Your task to perform on an android device: manage bookmarks in the chrome app Image 0: 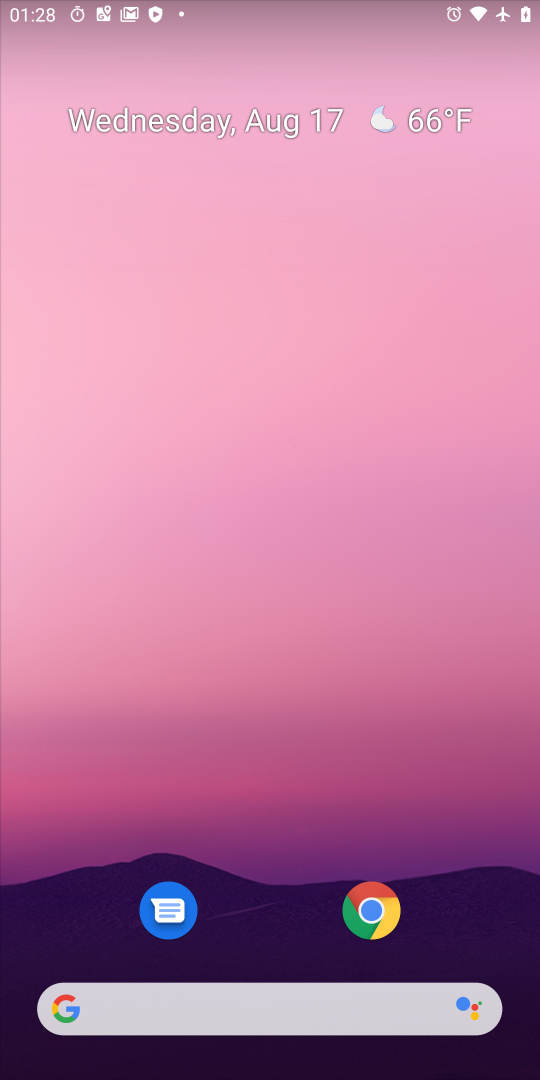
Step 0: drag from (243, 936) to (353, 185)
Your task to perform on an android device: manage bookmarks in the chrome app Image 1: 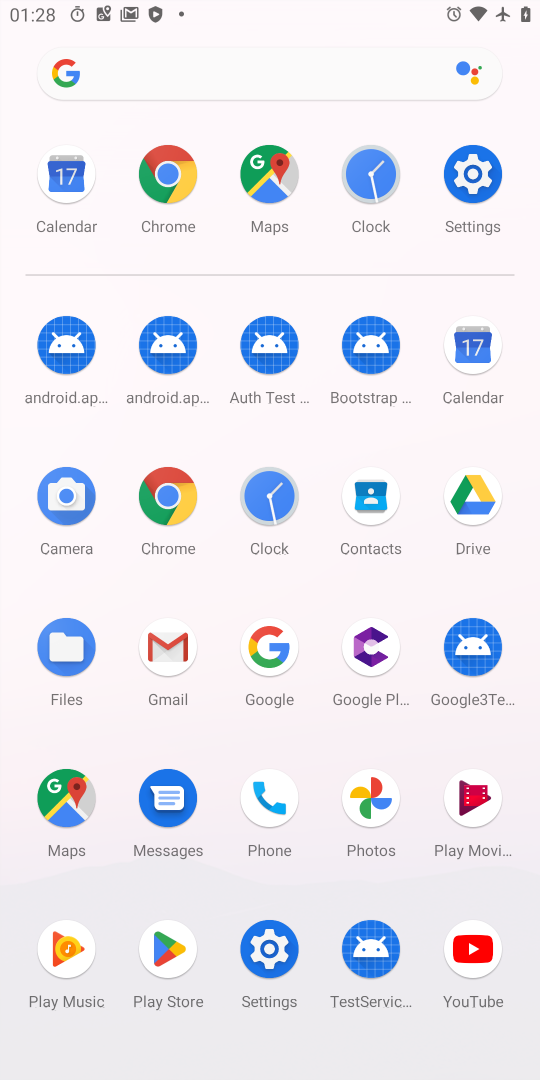
Step 1: click (171, 497)
Your task to perform on an android device: manage bookmarks in the chrome app Image 2: 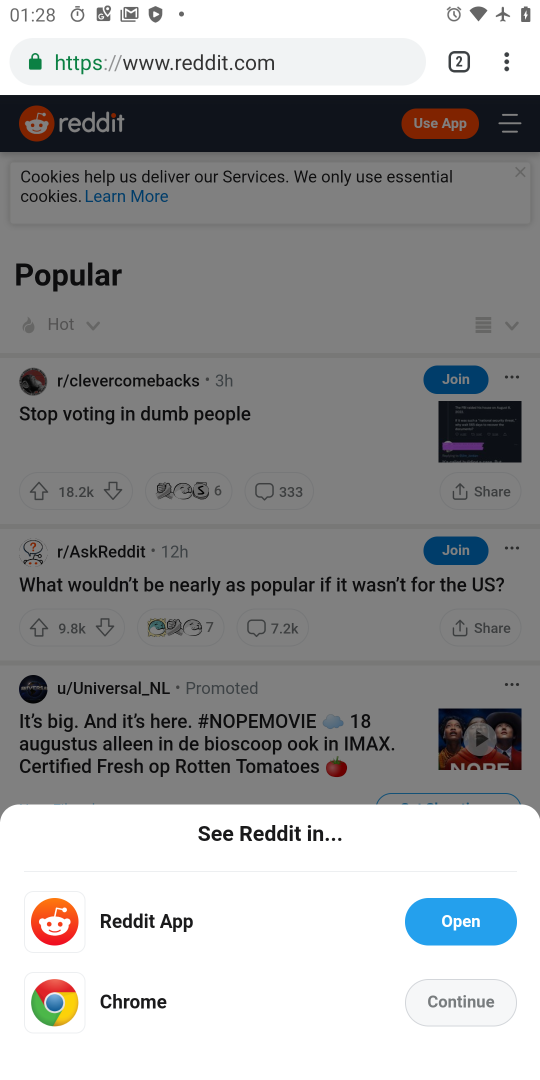
Step 2: drag from (498, 61) to (274, 314)
Your task to perform on an android device: manage bookmarks in the chrome app Image 3: 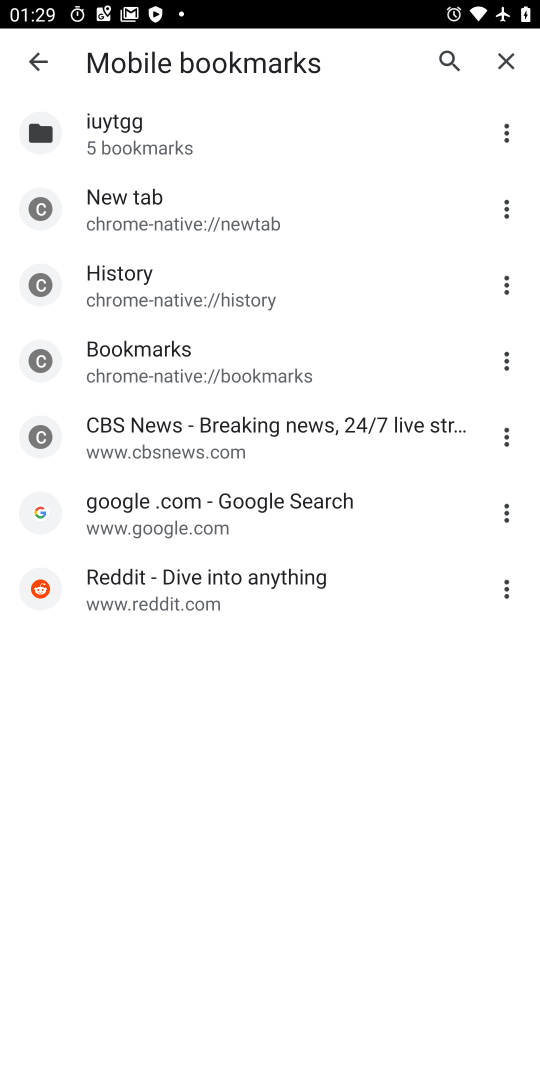
Step 3: click (505, 510)
Your task to perform on an android device: manage bookmarks in the chrome app Image 4: 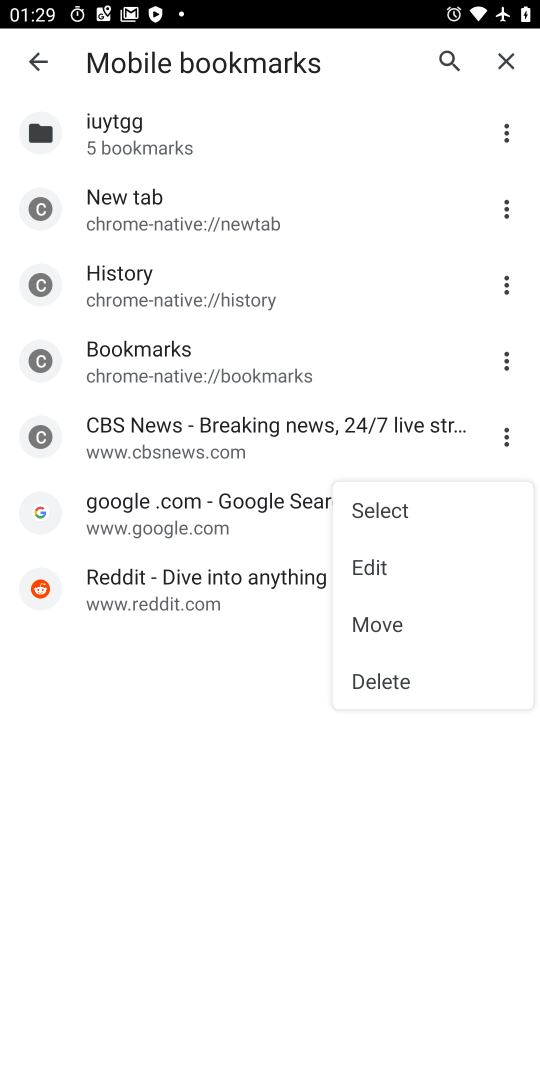
Step 4: click (383, 564)
Your task to perform on an android device: manage bookmarks in the chrome app Image 5: 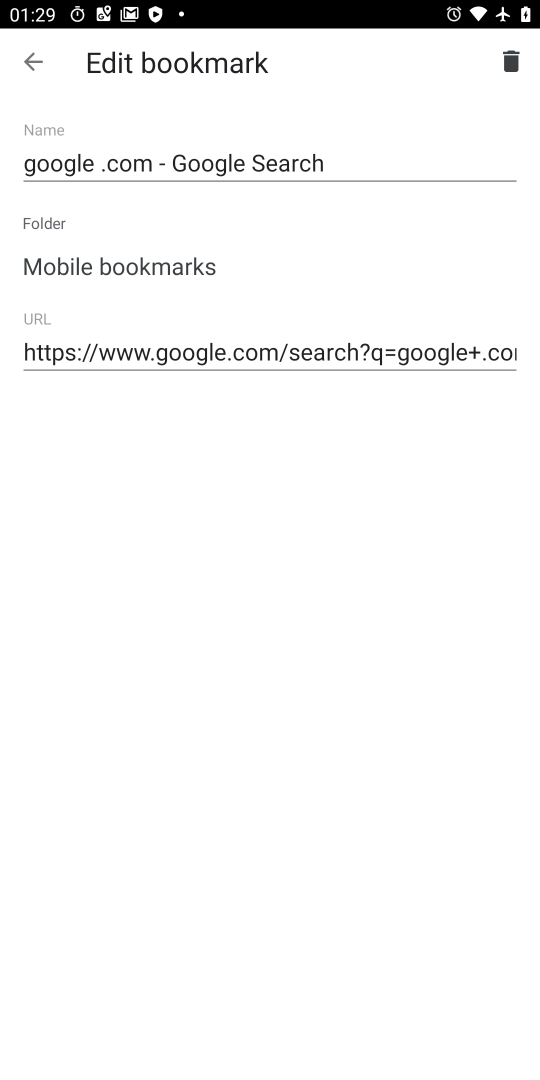
Step 5: drag from (330, 169) to (130, 154)
Your task to perform on an android device: manage bookmarks in the chrome app Image 6: 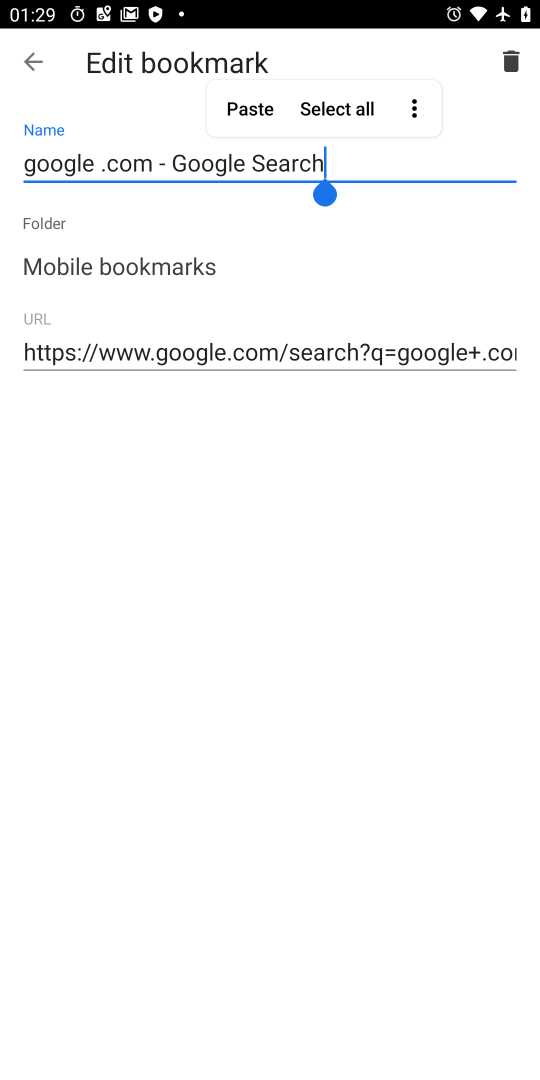
Step 6: drag from (340, 156) to (137, 164)
Your task to perform on an android device: manage bookmarks in the chrome app Image 7: 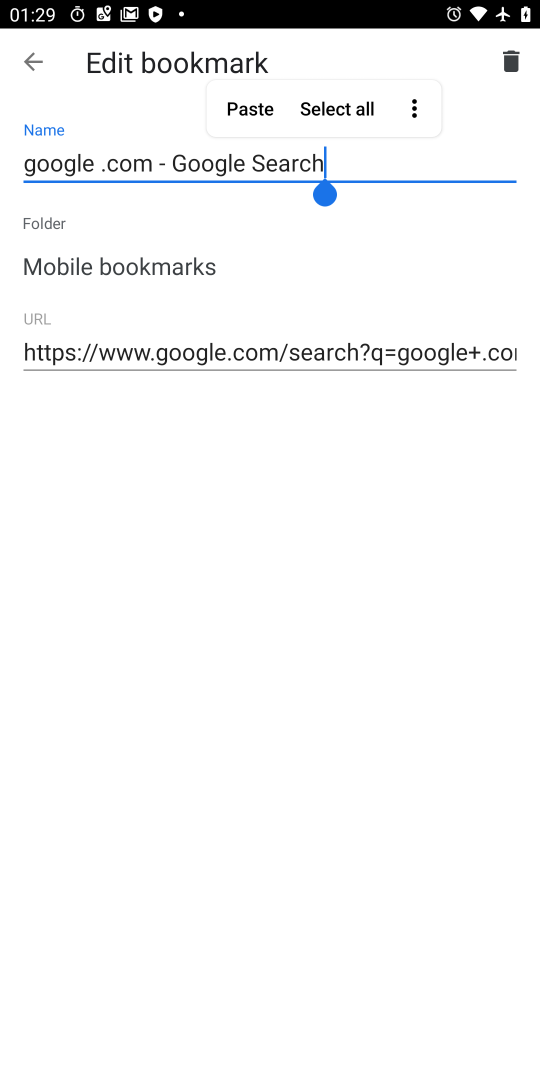
Step 7: click (207, 169)
Your task to perform on an android device: manage bookmarks in the chrome app Image 8: 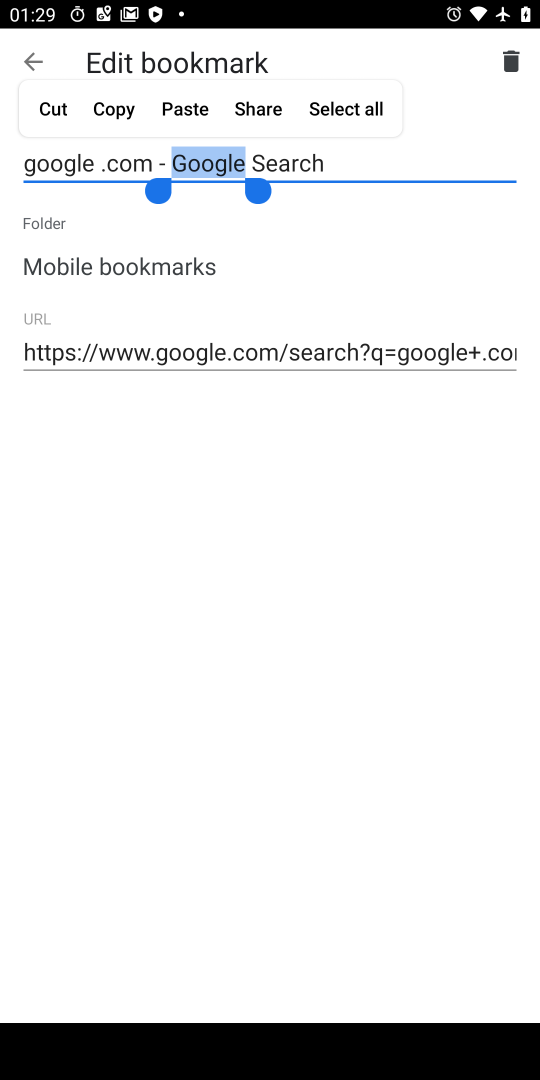
Step 8: click (46, 110)
Your task to perform on an android device: manage bookmarks in the chrome app Image 9: 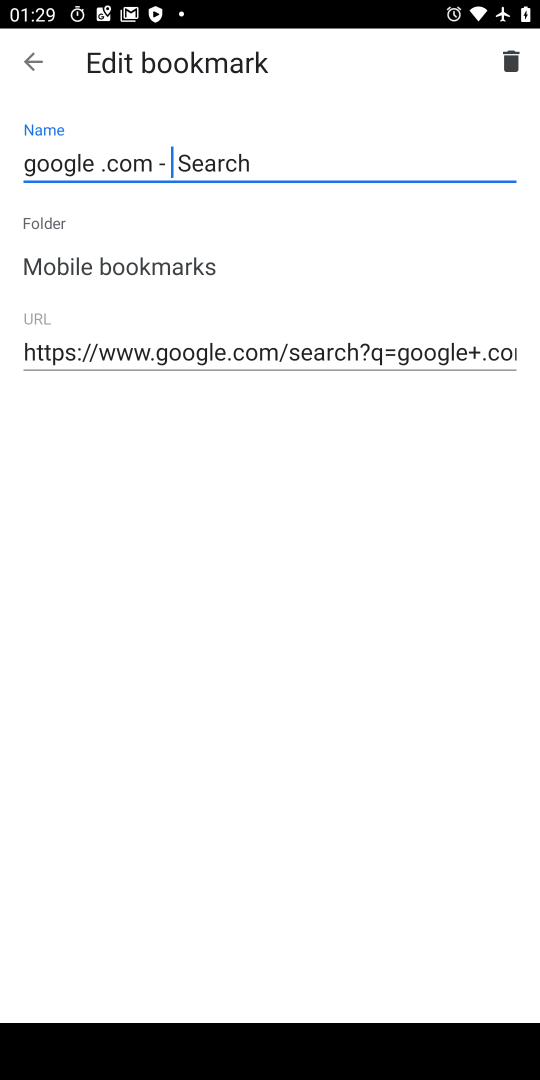
Step 9: click (35, 52)
Your task to perform on an android device: manage bookmarks in the chrome app Image 10: 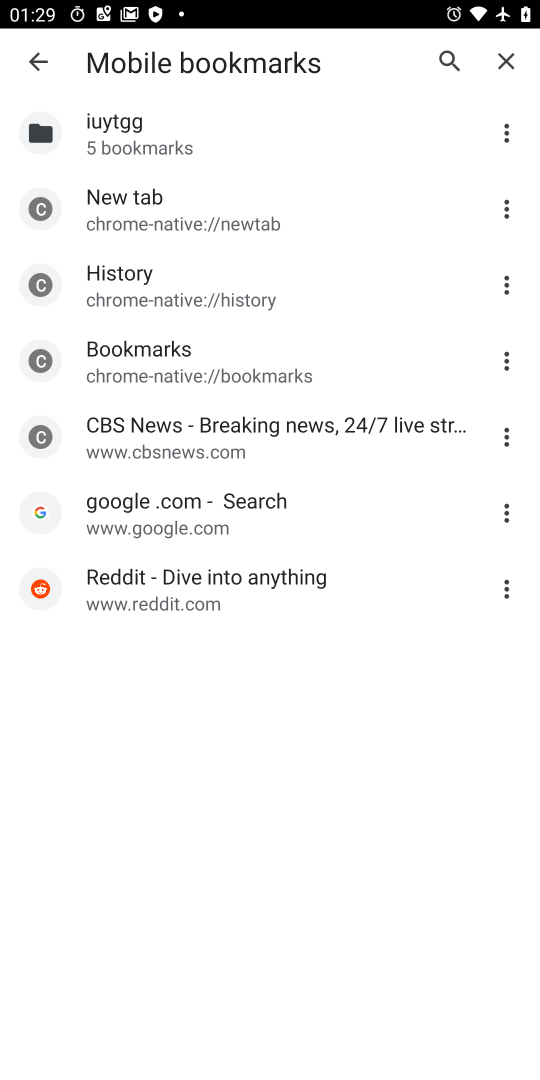
Step 10: task complete